Your task to perform on an android device: Open Google Chrome Image 0: 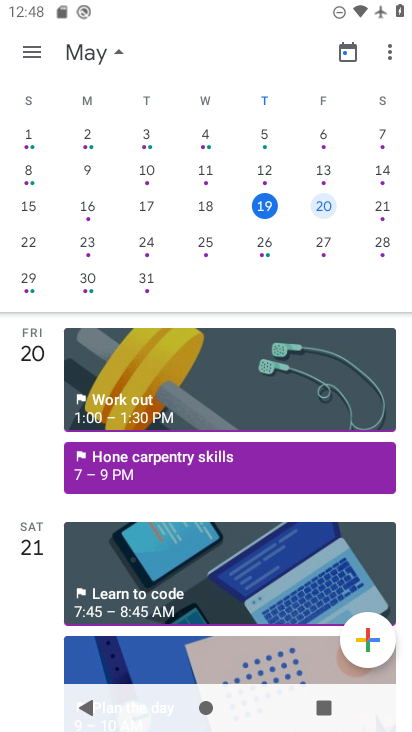
Step 0: press home button
Your task to perform on an android device: Open Google Chrome Image 1: 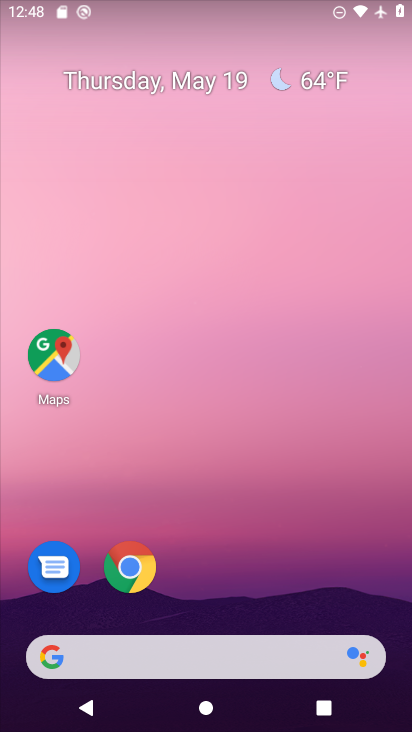
Step 1: click (137, 583)
Your task to perform on an android device: Open Google Chrome Image 2: 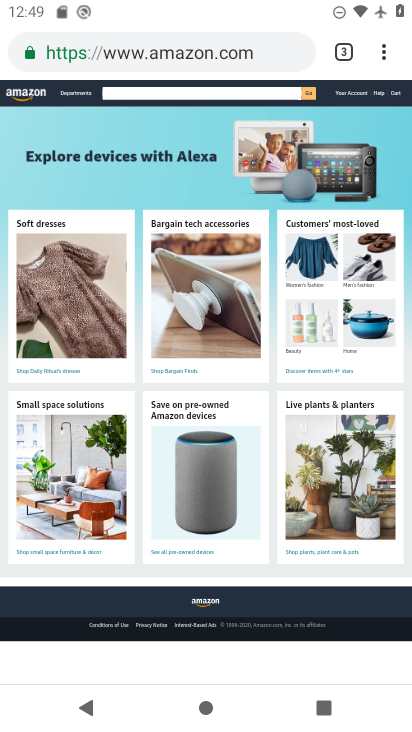
Step 2: task complete